Your task to perform on an android device: turn on the 12-hour format for clock Image 0: 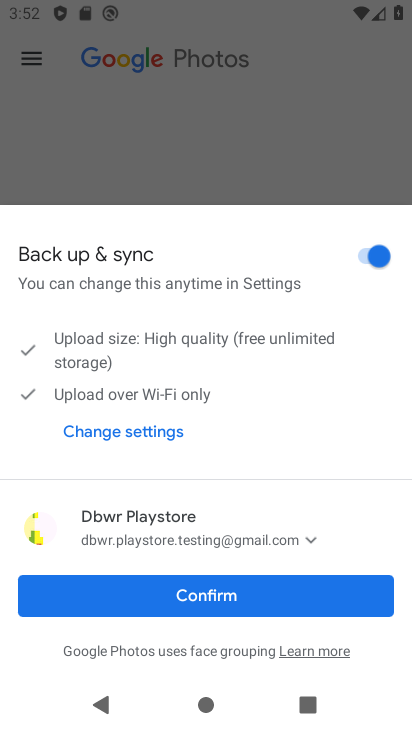
Step 0: press back button
Your task to perform on an android device: turn on the 12-hour format for clock Image 1: 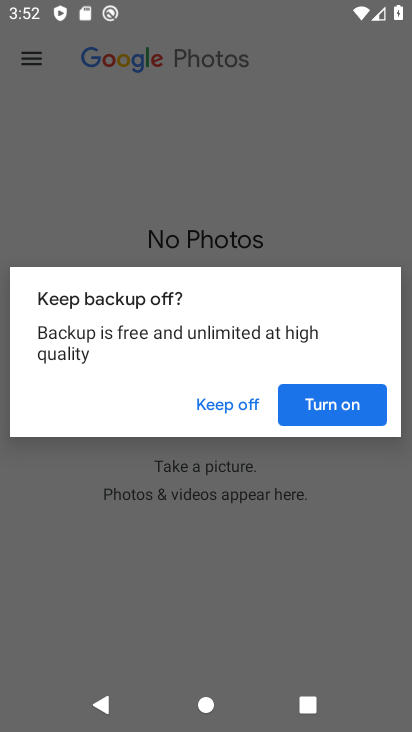
Step 1: click (247, 407)
Your task to perform on an android device: turn on the 12-hour format for clock Image 2: 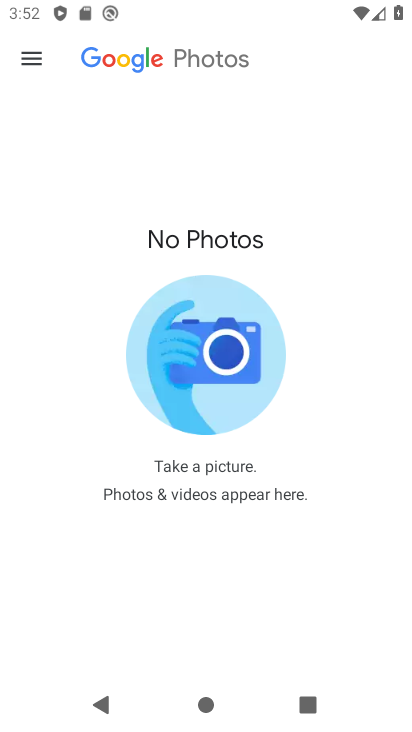
Step 2: press back button
Your task to perform on an android device: turn on the 12-hour format for clock Image 3: 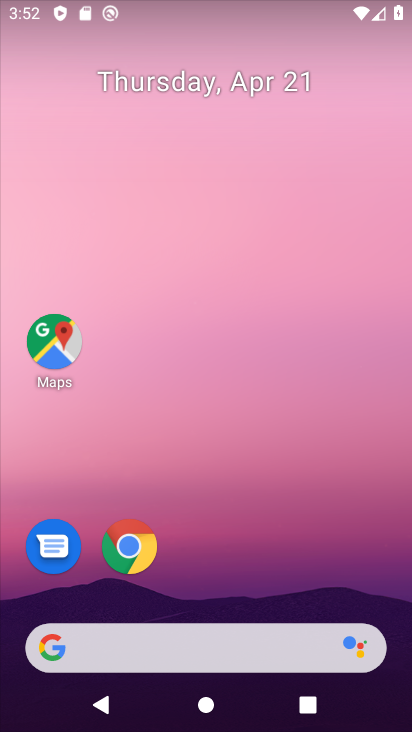
Step 3: drag from (226, 597) to (371, 134)
Your task to perform on an android device: turn on the 12-hour format for clock Image 4: 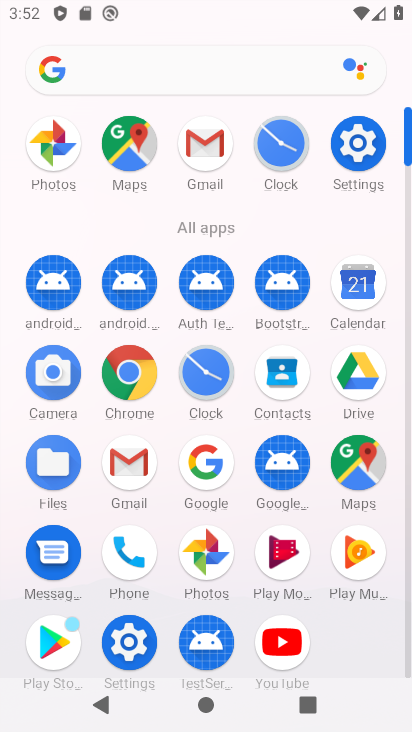
Step 4: click (209, 376)
Your task to perform on an android device: turn on the 12-hour format for clock Image 5: 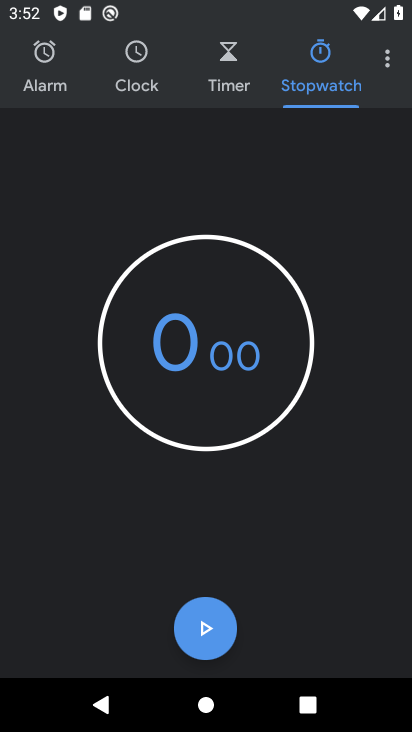
Step 5: click (379, 66)
Your task to perform on an android device: turn on the 12-hour format for clock Image 6: 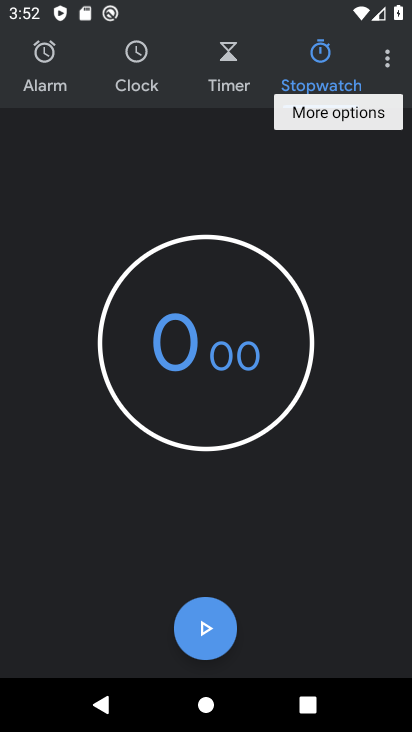
Step 6: click (385, 57)
Your task to perform on an android device: turn on the 12-hour format for clock Image 7: 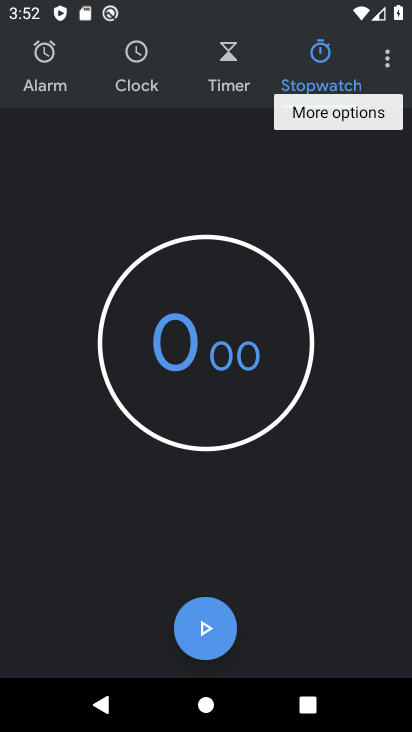
Step 7: click (384, 69)
Your task to perform on an android device: turn on the 12-hour format for clock Image 8: 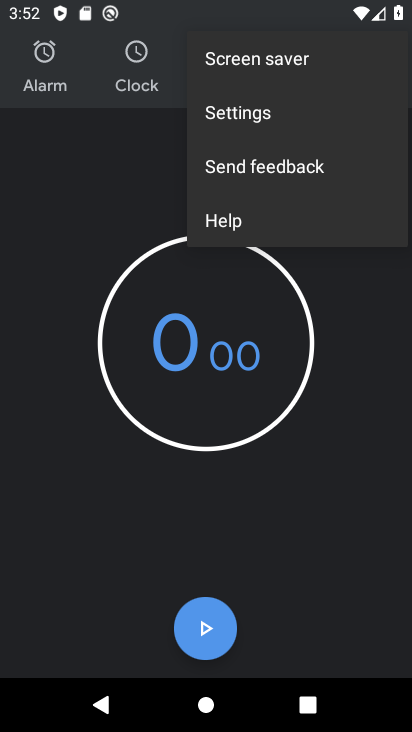
Step 8: click (352, 104)
Your task to perform on an android device: turn on the 12-hour format for clock Image 9: 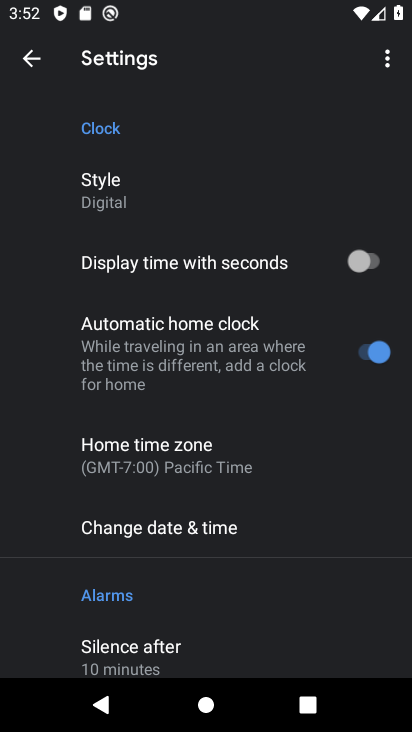
Step 9: click (264, 536)
Your task to perform on an android device: turn on the 12-hour format for clock Image 10: 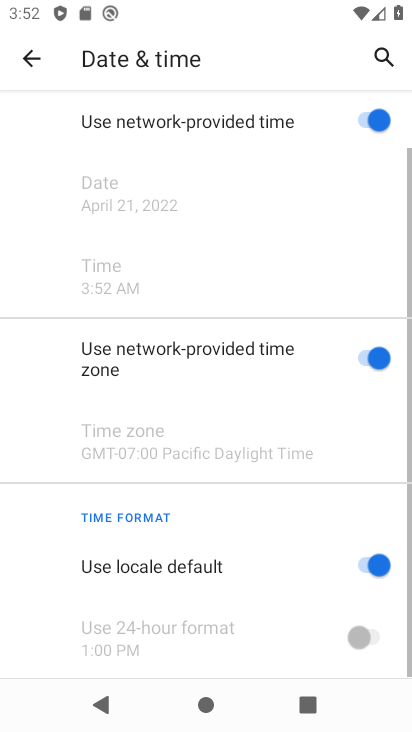
Step 10: task complete